Your task to perform on an android device: Go to Google Image 0: 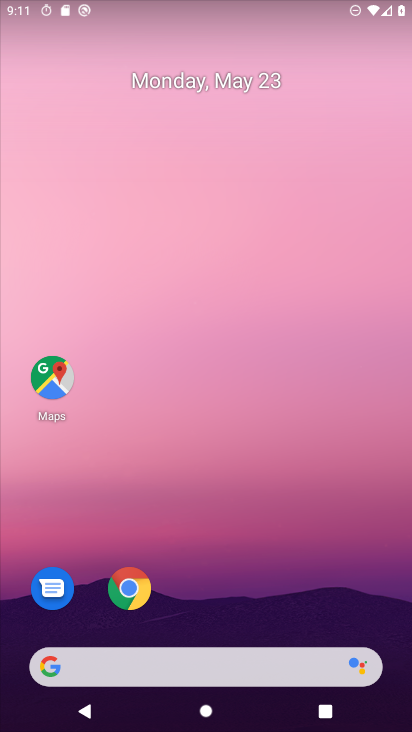
Step 0: drag from (378, 608) to (349, 189)
Your task to perform on an android device: Go to Google Image 1: 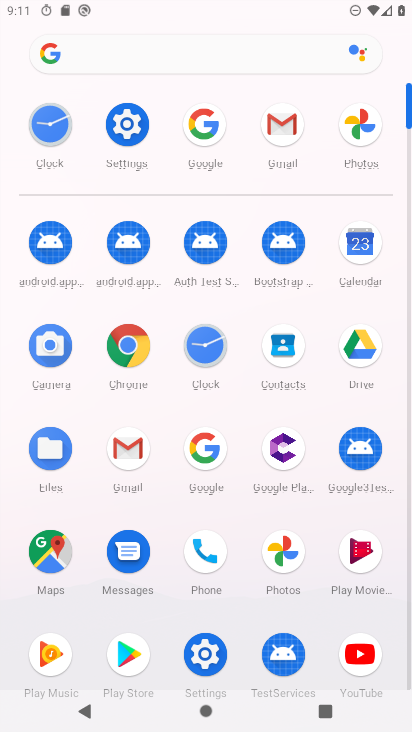
Step 1: click (200, 458)
Your task to perform on an android device: Go to Google Image 2: 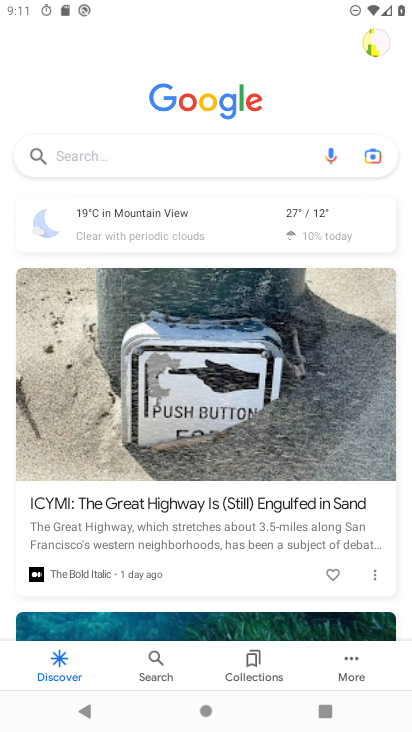
Step 2: task complete